Your task to perform on an android device: change your default location settings in chrome Image 0: 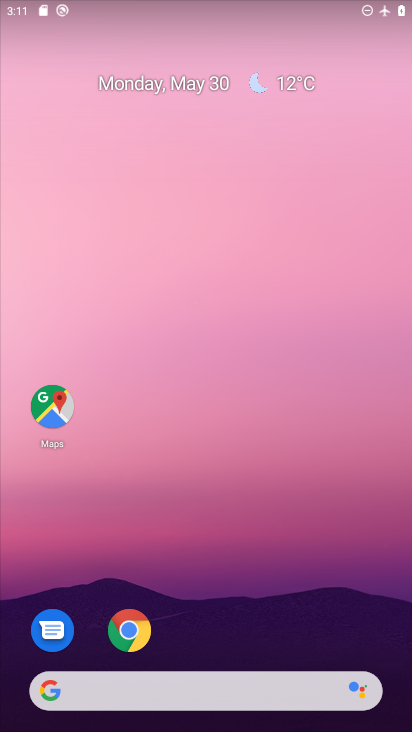
Step 0: click (137, 645)
Your task to perform on an android device: change your default location settings in chrome Image 1: 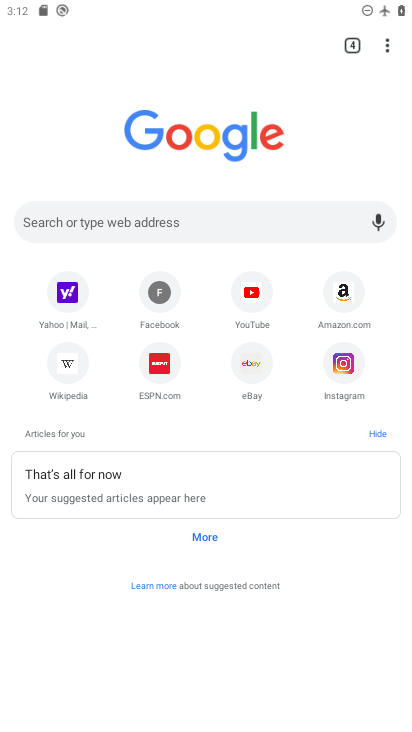
Step 1: drag from (385, 48) to (237, 381)
Your task to perform on an android device: change your default location settings in chrome Image 2: 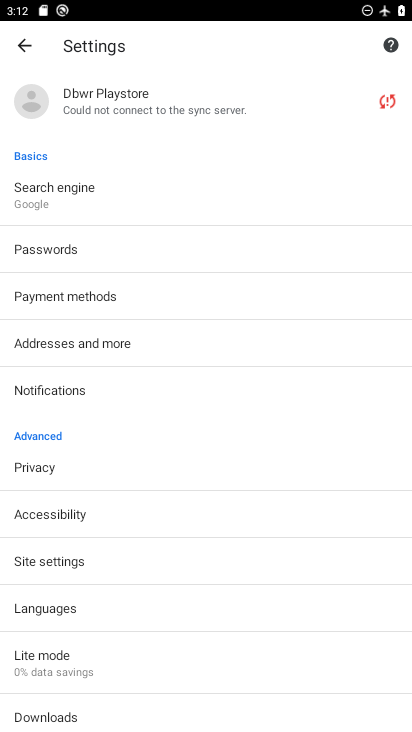
Step 2: click (74, 565)
Your task to perform on an android device: change your default location settings in chrome Image 3: 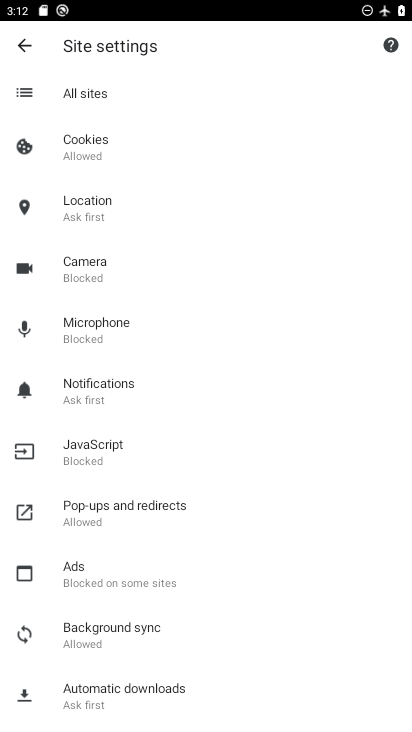
Step 3: click (84, 226)
Your task to perform on an android device: change your default location settings in chrome Image 4: 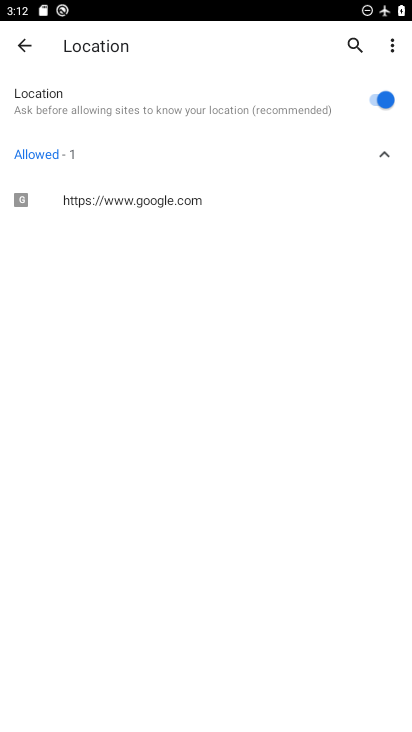
Step 4: click (374, 94)
Your task to perform on an android device: change your default location settings in chrome Image 5: 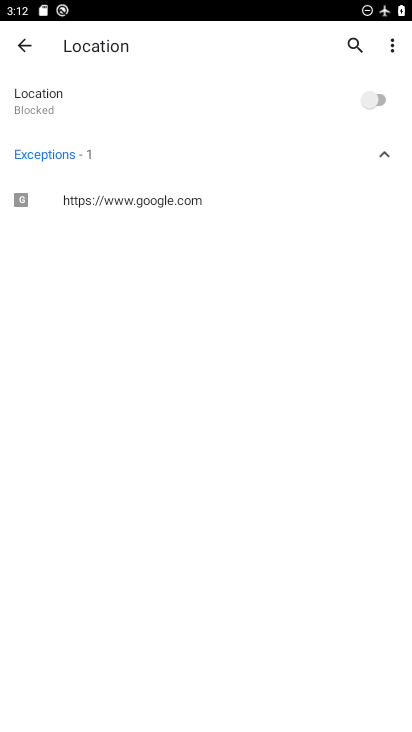
Step 5: task complete